Your task to perform on an android device: Search for the best rated kitchen reno kits on Lowes.com Image 0: 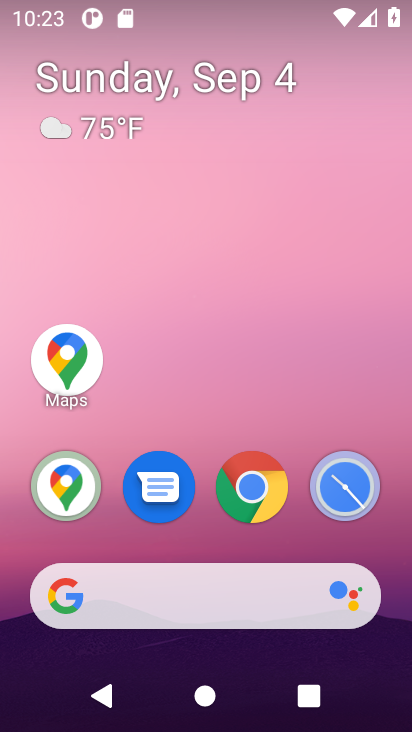
Step 0: click (346, 518)
Your task to perform on an android device: Search for the best rated kitchen reno kits on Lowes.com Image 1: 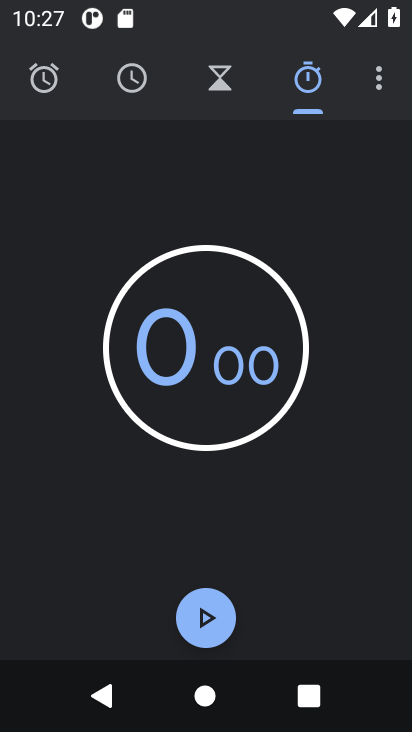
Step 1: click (197, 609)
Your task to perform on an android device: Search for the best rated kitchen reno kits on Lowes.com Image 2: 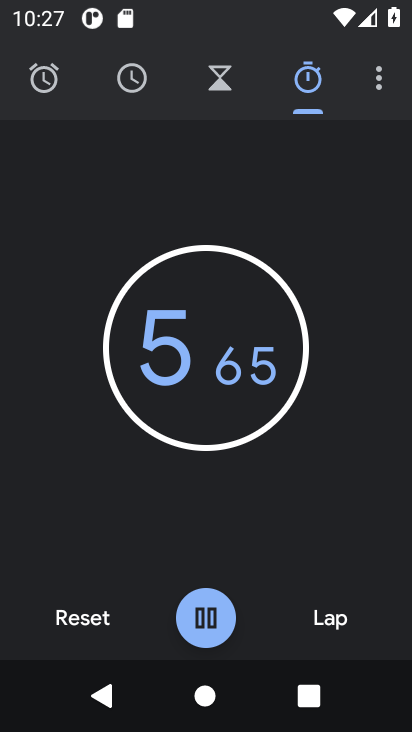
Step 2: task complete